Your task to perform on an android device: Clear the shopping cart on walmart. Add jbl flip 4 to the cart on walmart Image 0: 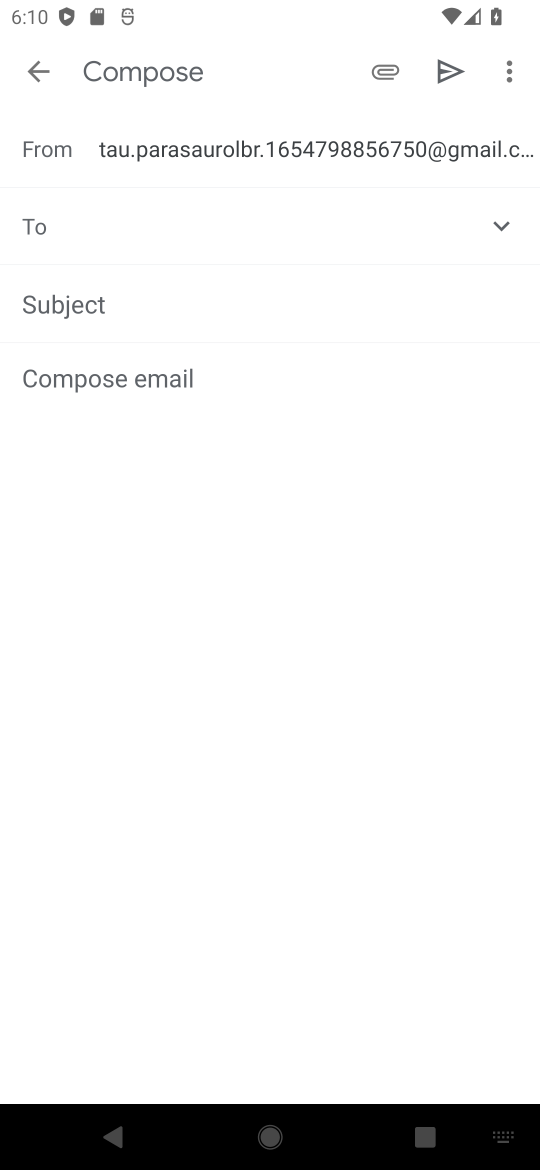
Step 0: press home button
Your task to perform on an android device: Clear the shopping cart on walmart. Add jbl flip 4 to the cart on walmart Image 1: 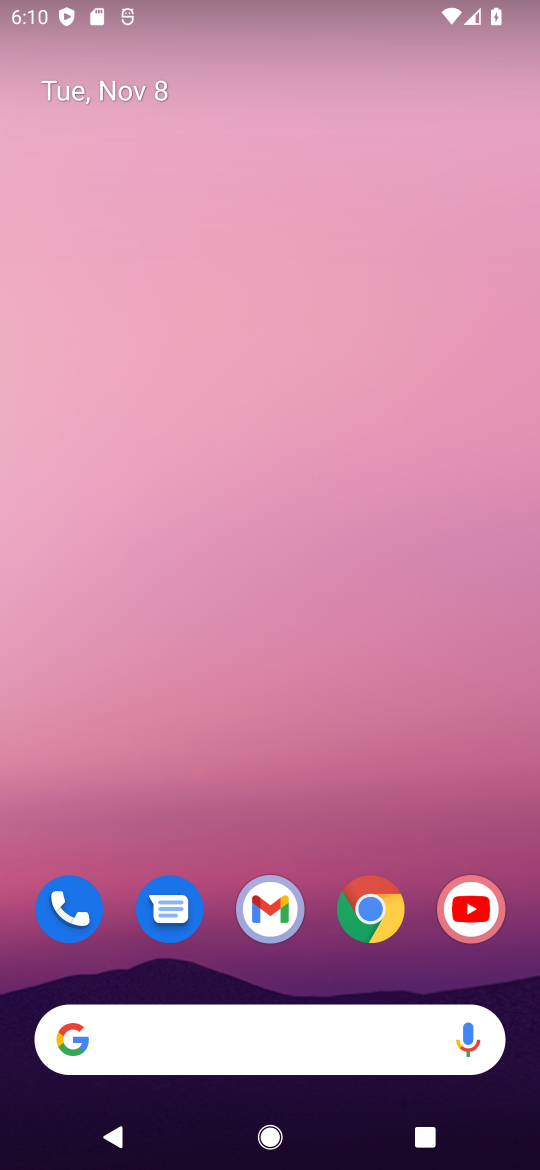
Step 1: click (372, 906)
Your task to perform on an android device: Clear the shopping cart on walmart. Add jbl flip 4 to the cart on walmart Image 2: 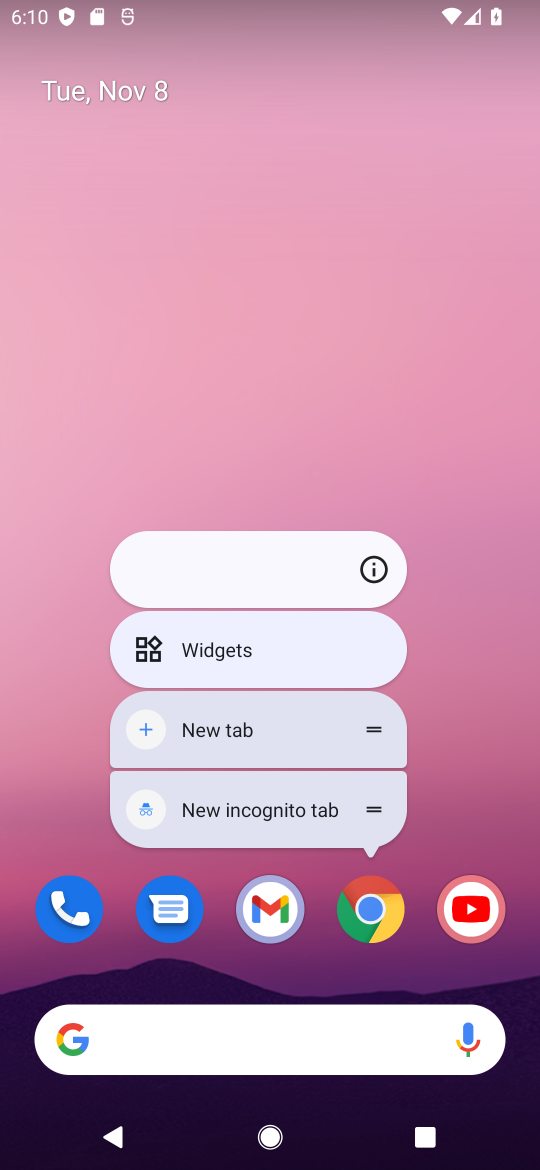
Step 2: click (372, 905)
Your task to perform on an android device: Clear the shopping cart on walmart. Add jbl flip 4 to the cart on walmart Image 3: 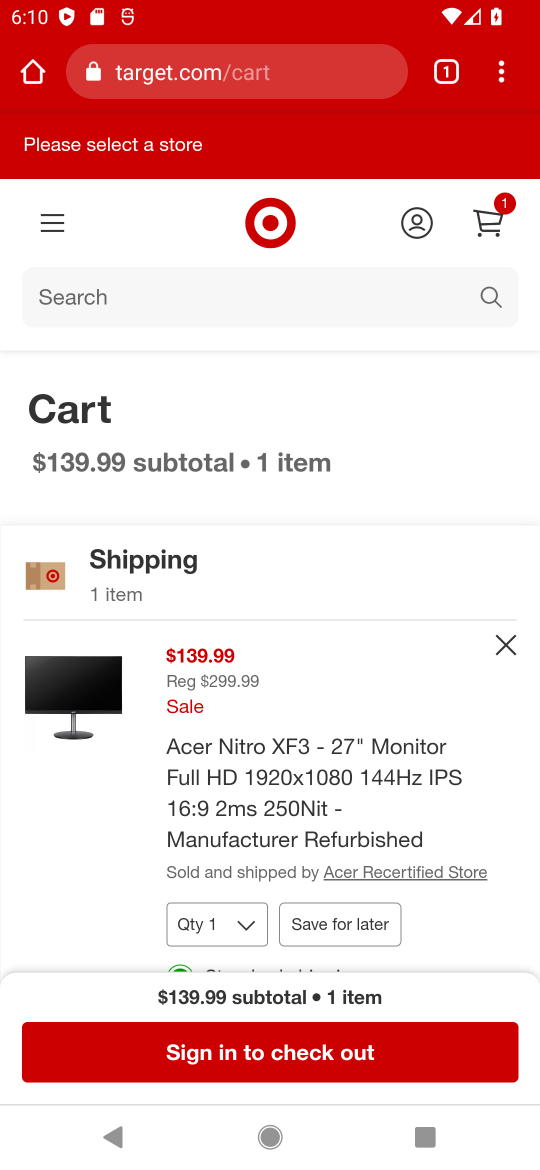
Step 3: click (315, 75)
Your task to perform on an android device: Clear the shopping cart on walmart. Add jbl flip 4 to the cart on walmart Image 4: 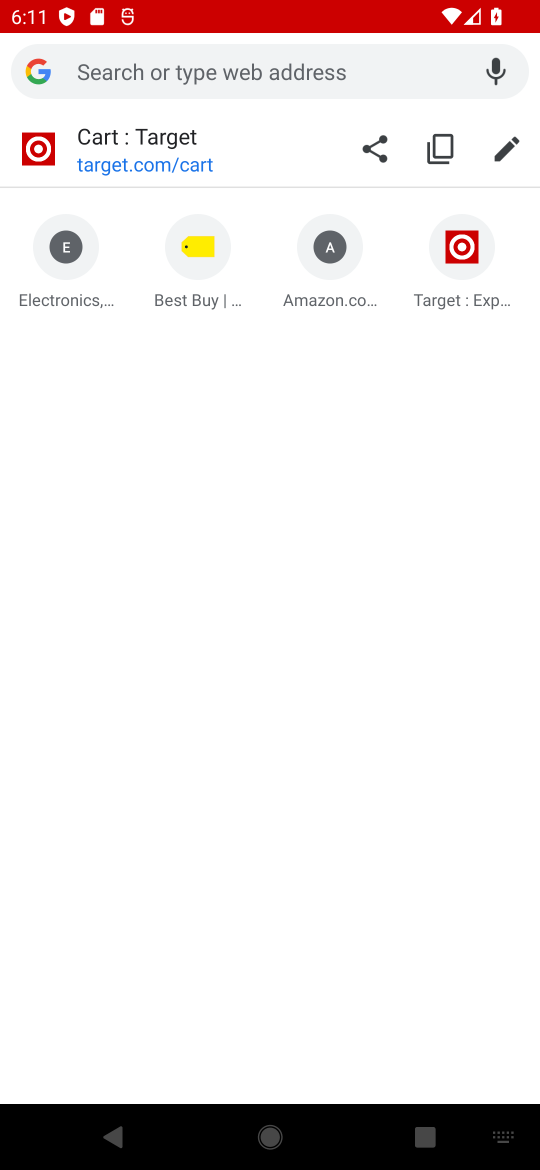
Step 4: drag from (443, 270) to (47, 252)
Your task to perform on an android device: Clear the shopping cart on walmart. Add jbl flip 4 to the cart on walmart Image 5: 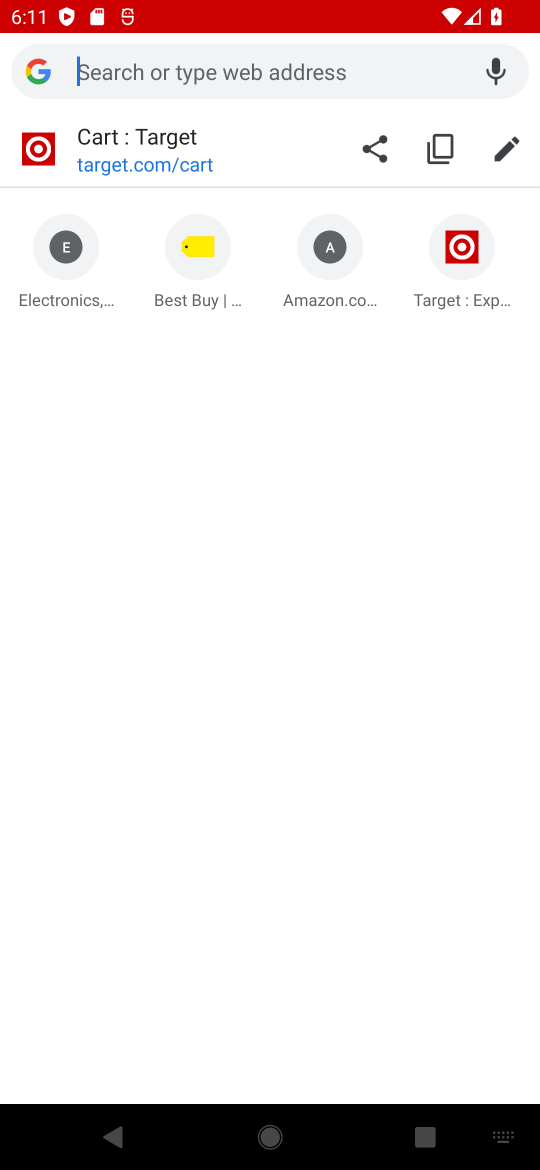
Step 5: drag from (414, 279) to (1, 276)
Your task to perform on an android device: Clear the shopping cart on walmart. Add jbl flip 4 to the cart on walmart Image 6: 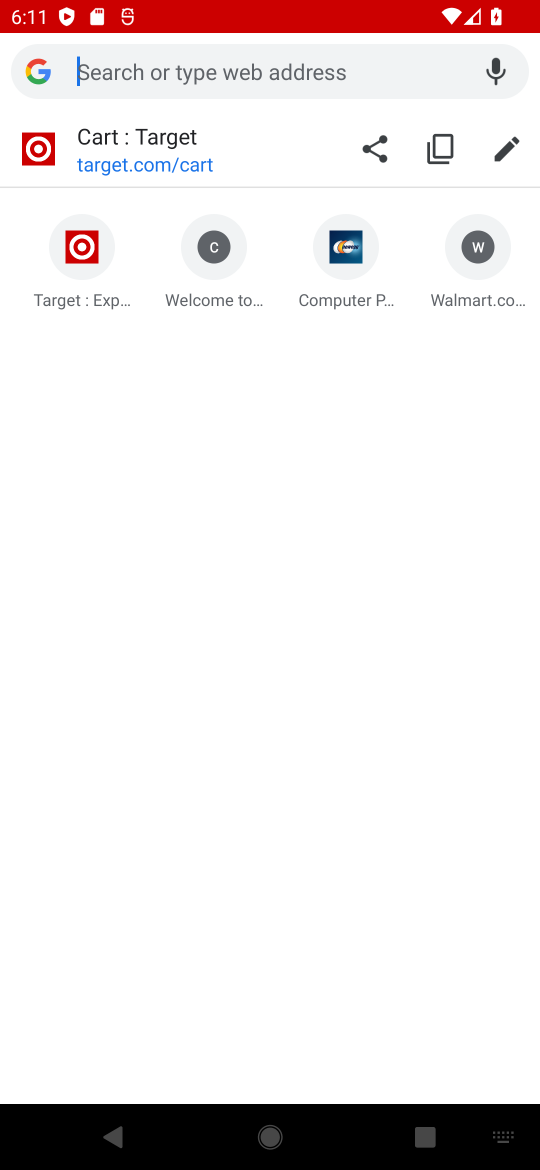
Step 6: click (478, 295)
Your task to perform on an android device: Clear the shopping cart on walmart. Add jbl flip 4 to the cart on walmart Image 7: 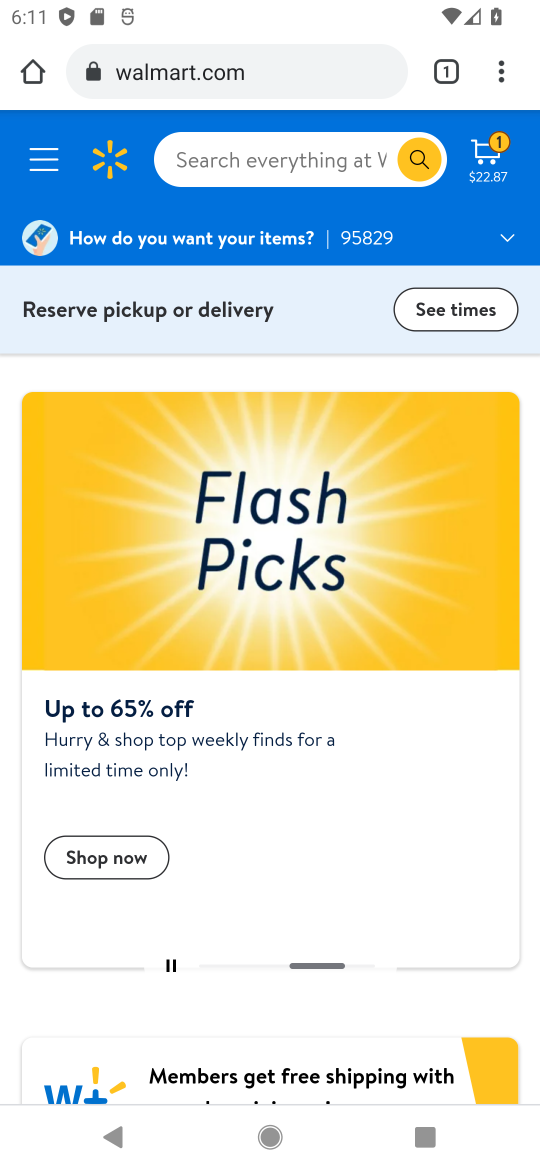
Step 7: click (278, 154)
Your task to perform on an android device: Clear the shopping cart on walmart. Add jbl flip 4 to the cart on walmart Image 8: 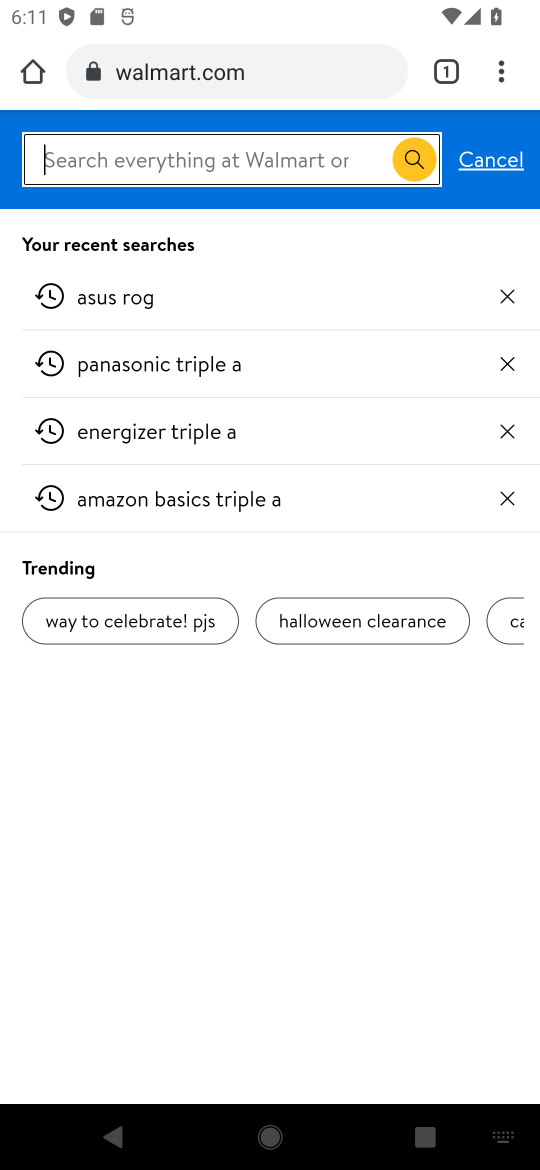
Step 8: type " jbl flip 4"
Your task to perform on an android device: Clear the shopping cart on walmart. Add jbl flip 4 to the cart on walmart Image 9: 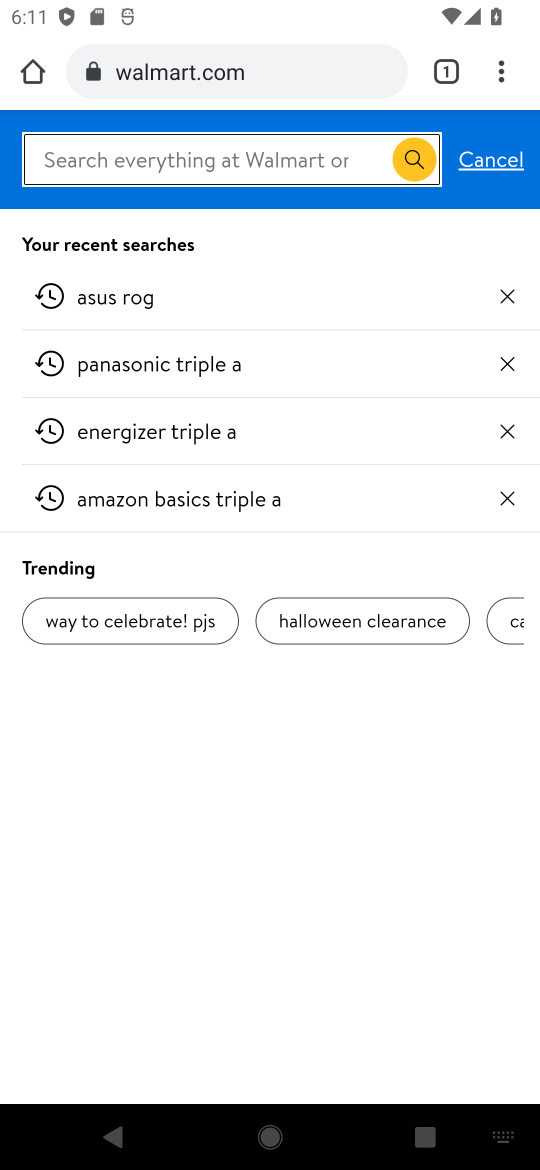
Step 9: press enter
Your task to perform on an android device: Clear the shopping cart on walmart. Add jbl flip 4 to the cart on walmart Image 10: 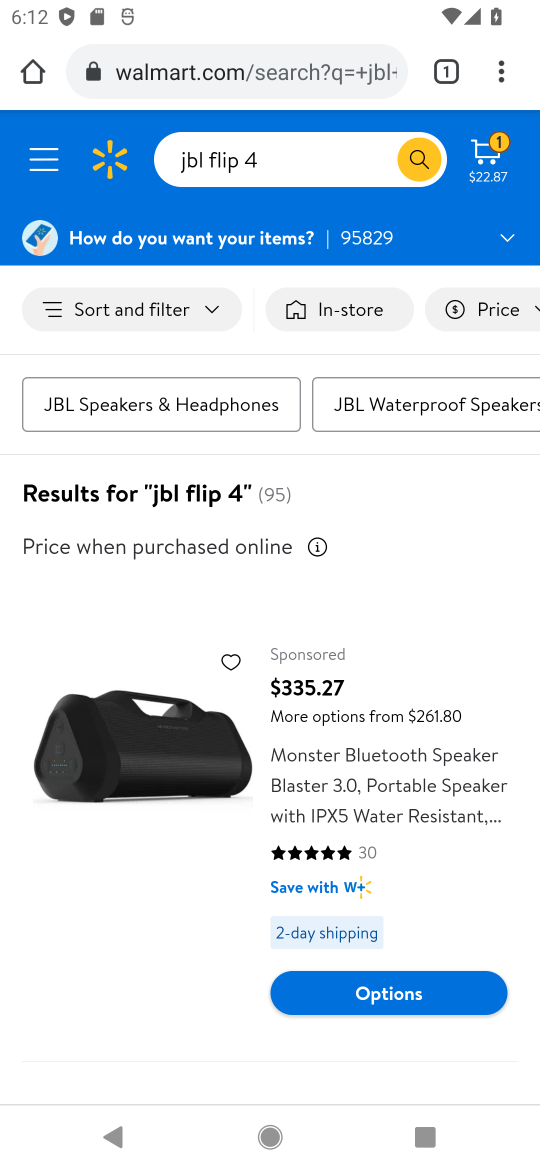
Step 10: task complete